Your task to perform on an android device: change keyboard looks Image 0: 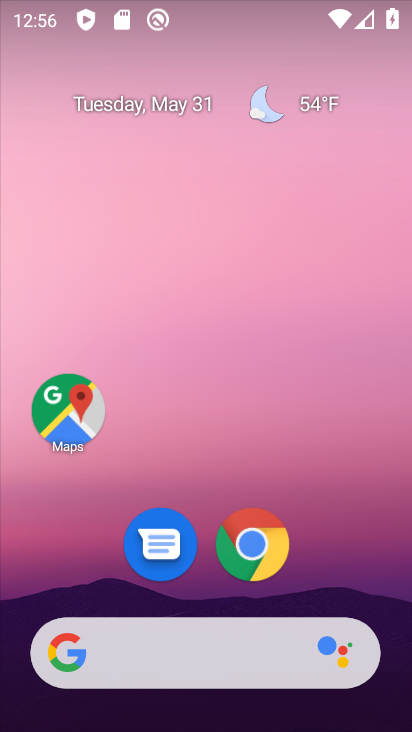
Step 0: drag from (204, 592) to (204, 35)
Your task to perform on an android device: change keyboard looks Image 1: 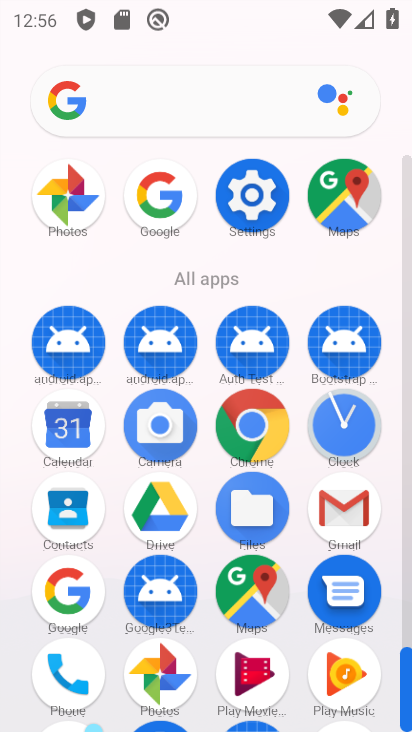
Step 1: click (244, 191)
Your task to perform on an android device: change keyboard looks Image 2: 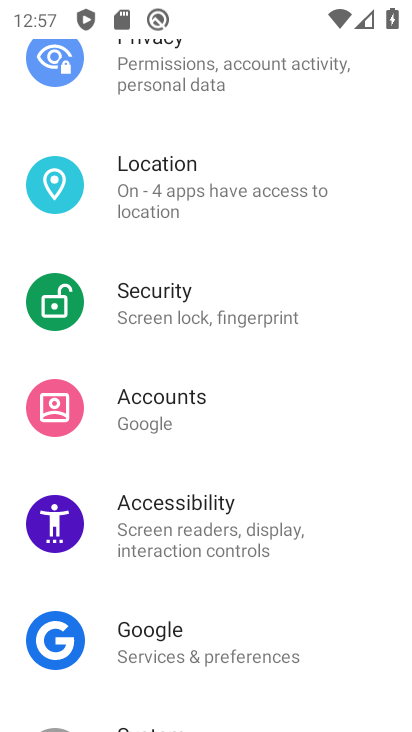
Step 2: drag from (173, 623) to (144, 211)
Your task to perform on an android device: change keyboard looks Image 3: 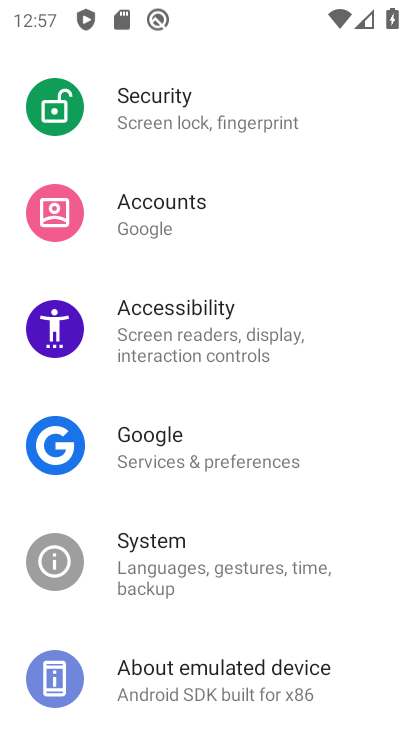
Step 3: click (146, 570)
Your task to perform on an android device: change keyboard looks Image 4: 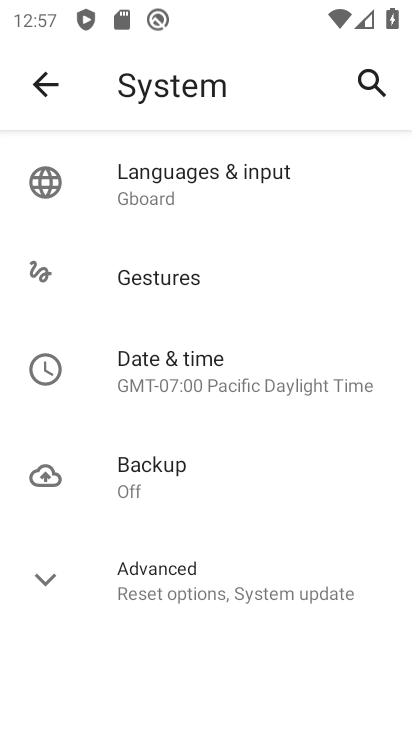
Step 4: click (153, 188)
Your task to perform on an android device: change keyboard looks Image 5: 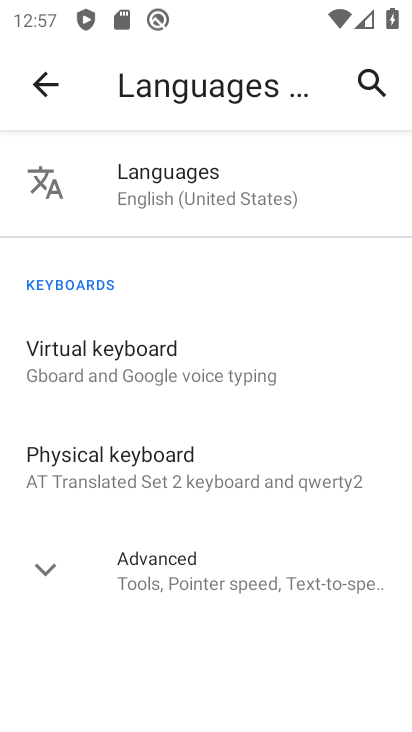
Step 5: click (104, 378)
Your task to perform on an android device: change keyboard looks Image 6: 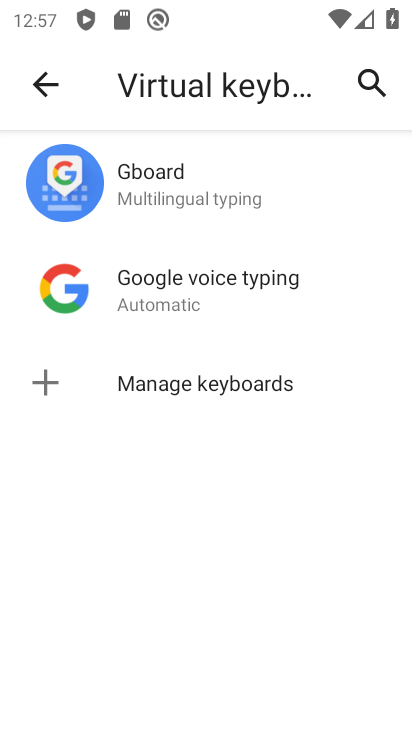
Step 6: click (162, 202)
Your task to perform on an android device: change keyboard looks Image 7: 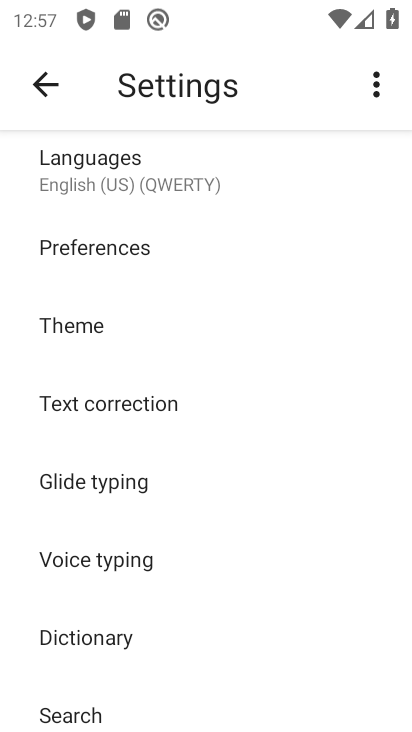
Step 7: click (83, 312)
Your task to perform on an android device: change keyboard looks Image 8: 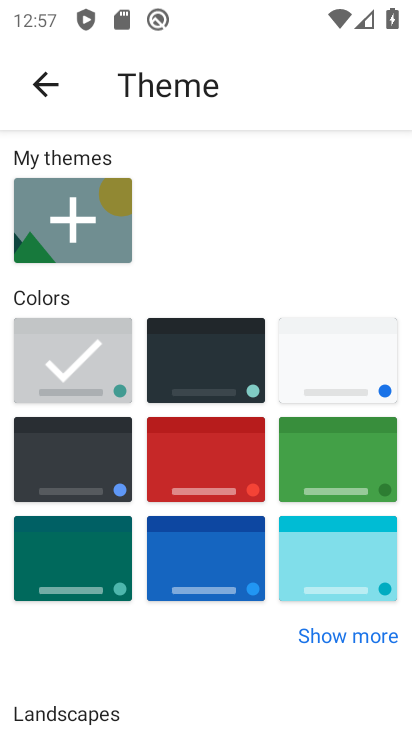
Step 8: click (68, 488)
Your task to perform on an android device: change keyboard looks Image 9: 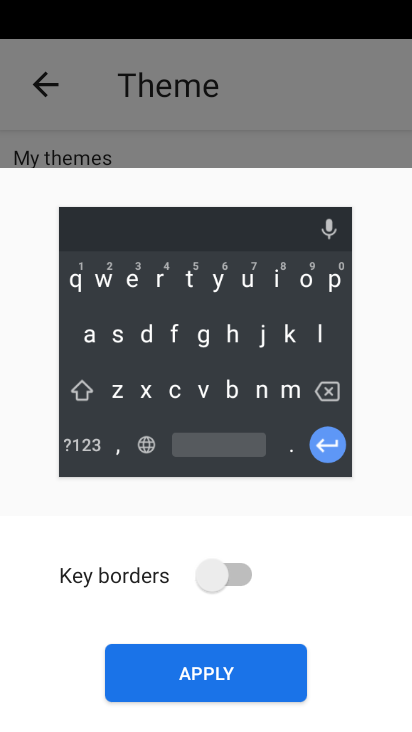
Step 9: click (167, 682)
Your task to perform on an android device: change keyboard looks Image 10: 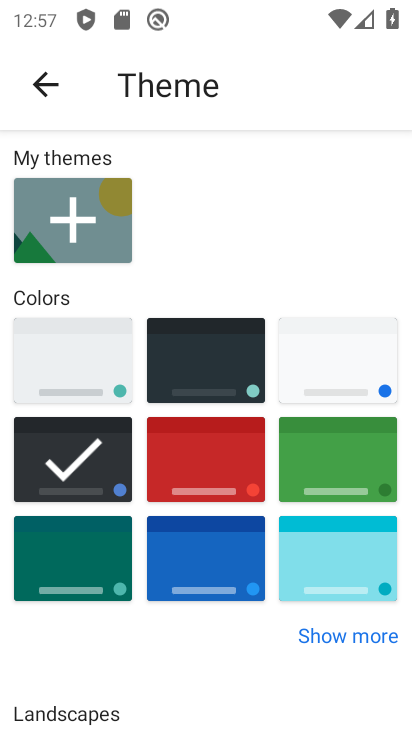
Step 10: task complete